Your task to perform on an android device: Open settings Image 0: 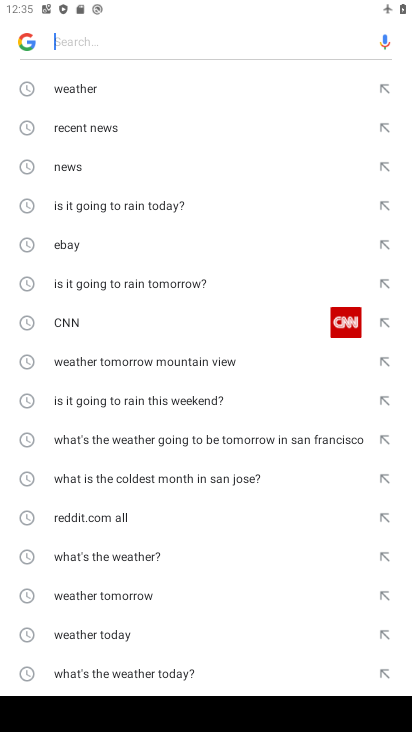
Step 0: press home button
Your task to perform on an android device: Open settings Image 1: 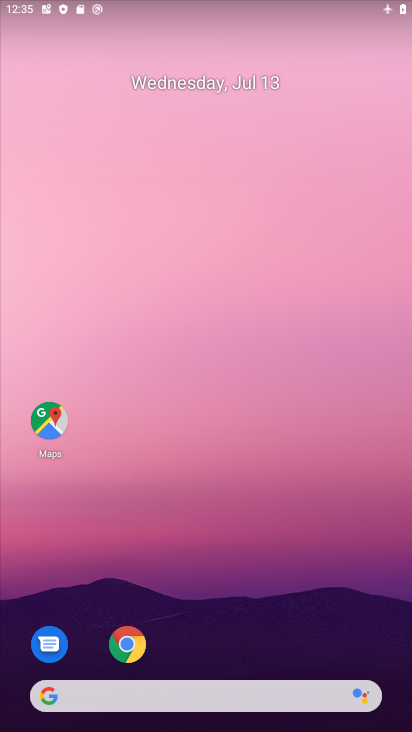
Step 1: drag from (291, 587) to (230, 125)
Your task to perform on an android device: Open settings Image 2: 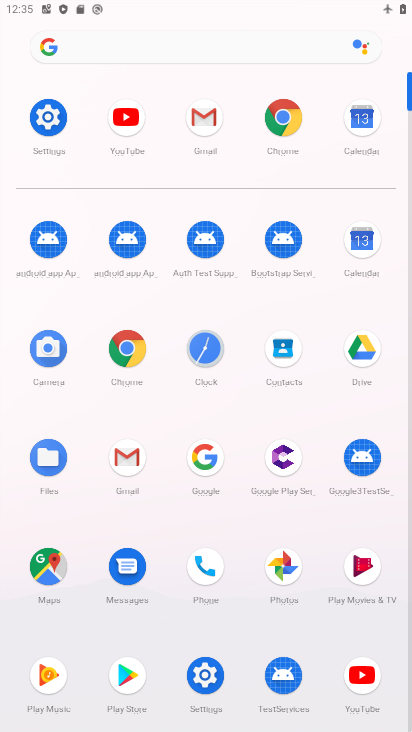
Step 2: click (34, 115)
Your task to perform on an android device: Open settings Image 3: 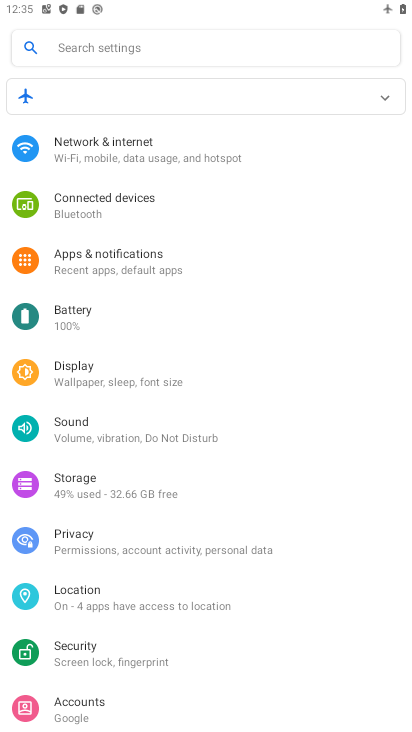
Step 3: task complete